Your task to perform on an android device: Search for Mexican restaurants on Maps Image 0: 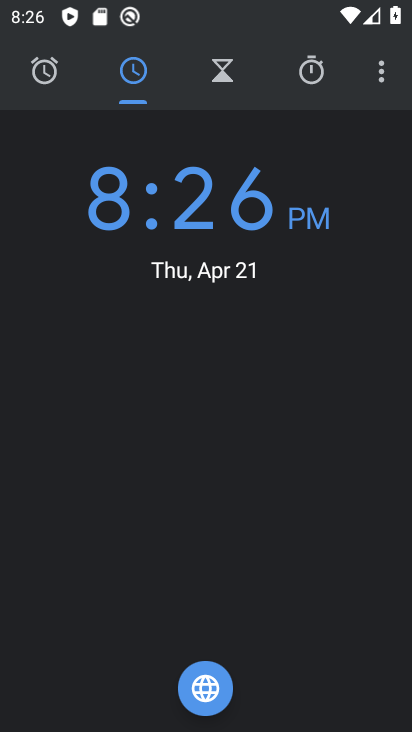
Step 0: press home button
Your task to perform on an android device: Search for Mexican restaurants on Maps Image 1: 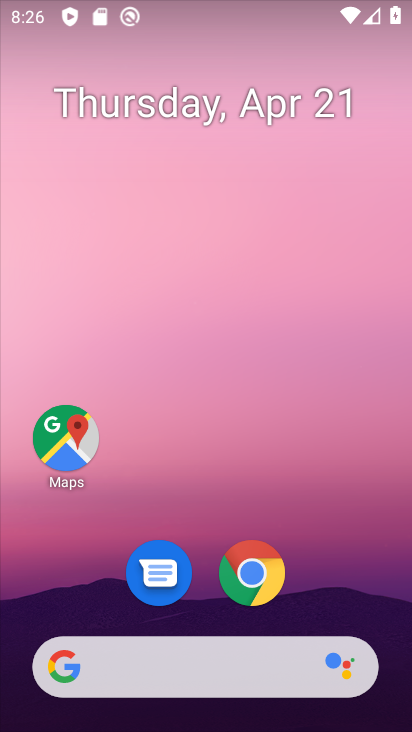
Step 1: click (55, 424)
Your task to perform on an android device: Search for Mexican restaurants on Maps Image 2: 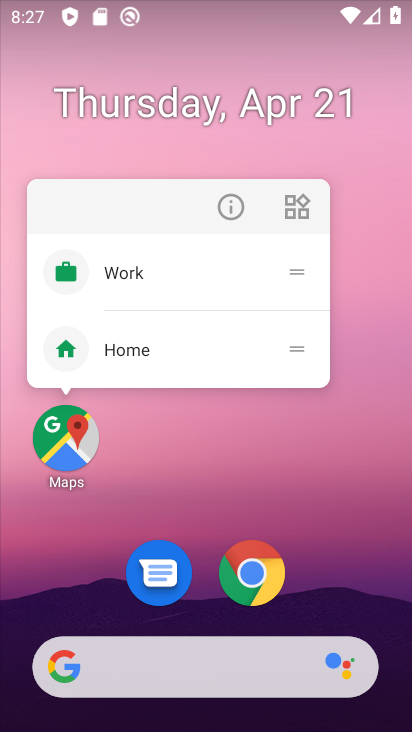
Step 2: click (77, 467)
Your task to perform on an android device: Search for Mexican restaurants on Maps Image 3: 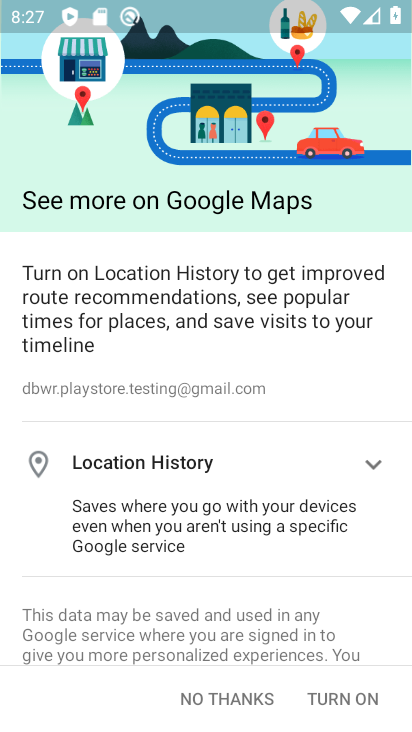
Step 3: click (271, 683)
Your task to perform on an android device: Search for Mexican restaurants on Maps Image 4: 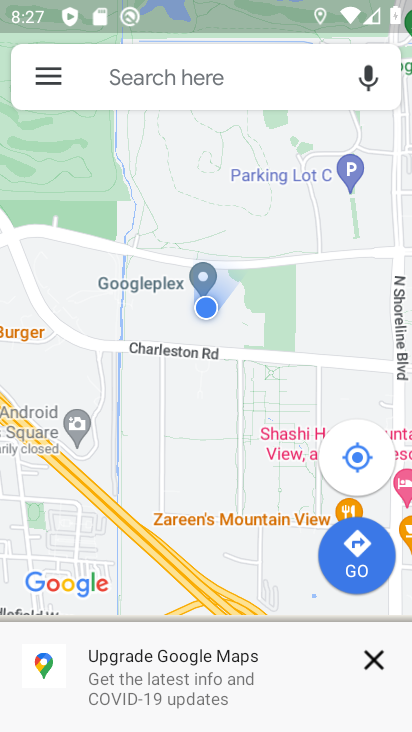
Step 4: click (179, 72)
Your task to perform on an android device: Search for Mexican restaurants on Maps Image 5: 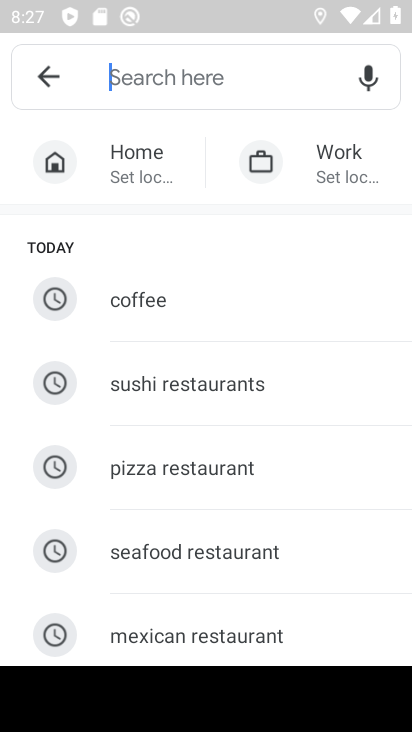
Step 5: click (228, 621)
Your task to perform on an android device: Search for Mexican restaurants on Maps Image 6: 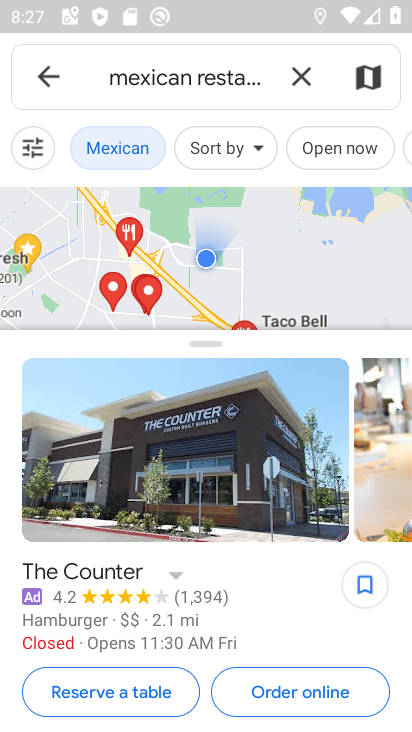
Step 6: task complete